Your task to perform on an android device: Do I have any events tomorrow? Image 0: 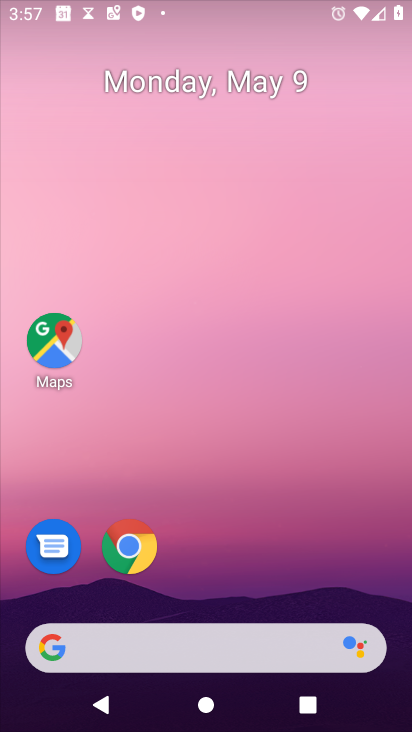
Step 0: click (357, 123)
Your task to perform on an android device: Do I have any events tomorrow? Image 1: 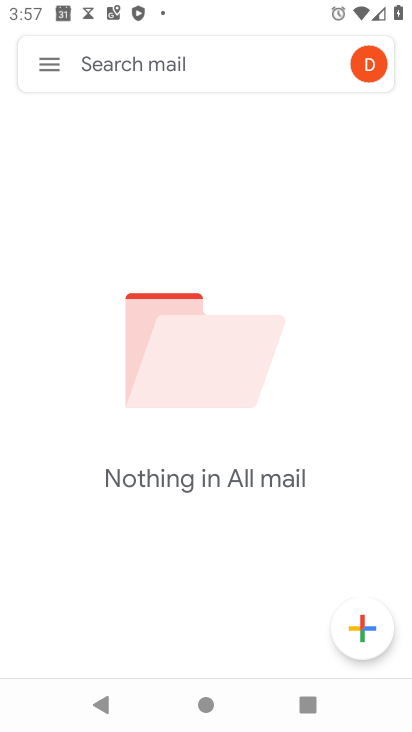
Step 1: press home button
Your task to perform on an android device: Do I have any events tomorrow? Image 2: 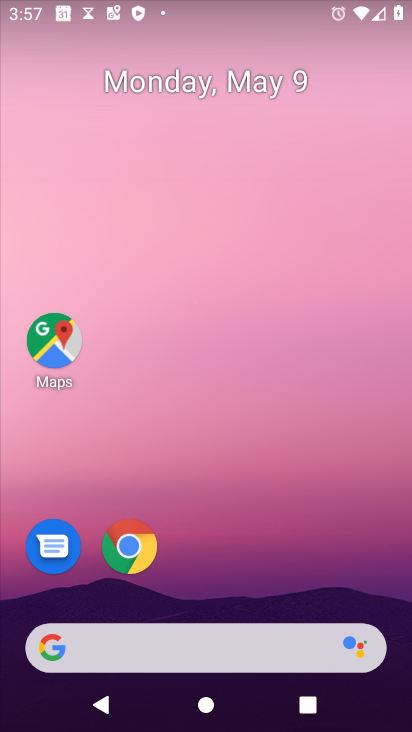
Step 2: drag from (339, 441) to (276, 133)
Your task to perform on an android device: Do I have any events tomorrow? Image 3: 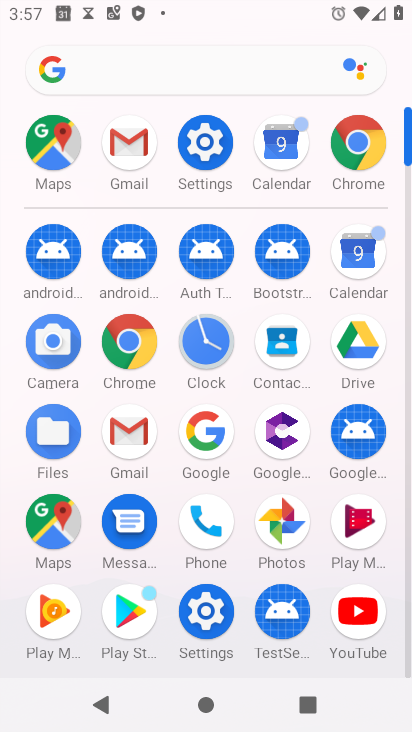
Step 3: click (360, 262)
Your task to perform on an android device: Do I have any events tomorrow? Image 4: 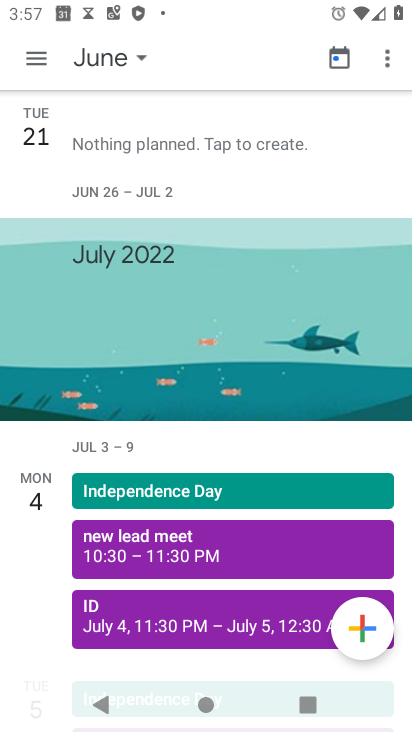
Step 4: click (85, 58)
Your task to perform on an android device: Do I have any events tomorrow? Image 5: 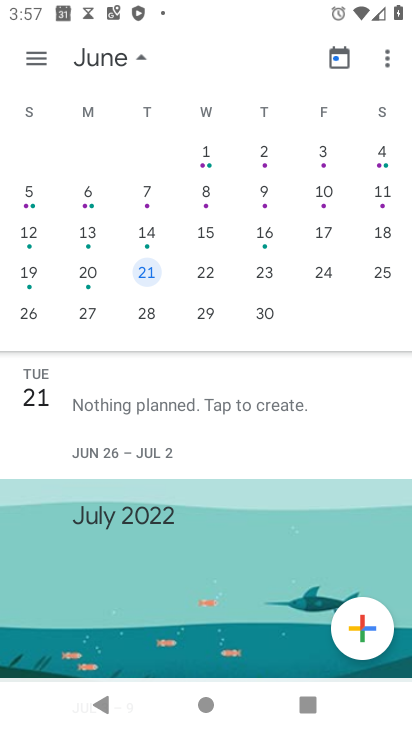
Step 5: click (209, 275)
Your task to perform on an android device: Do I have any events tomorrow? Image 6: 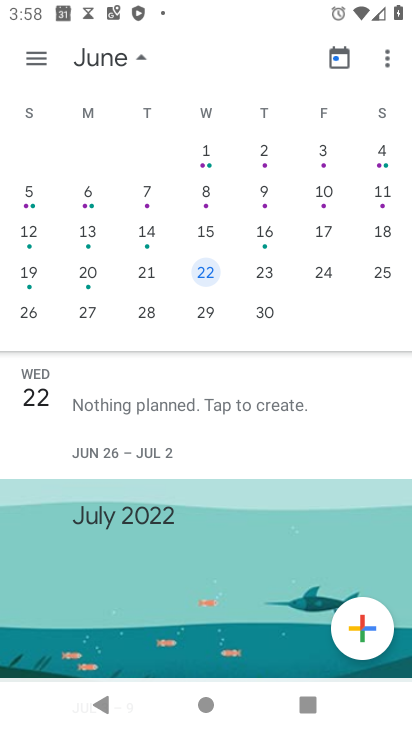
Step 6: task complete